Your task to perform on an android device: Search for pizza restaurants on Maps Image 0: 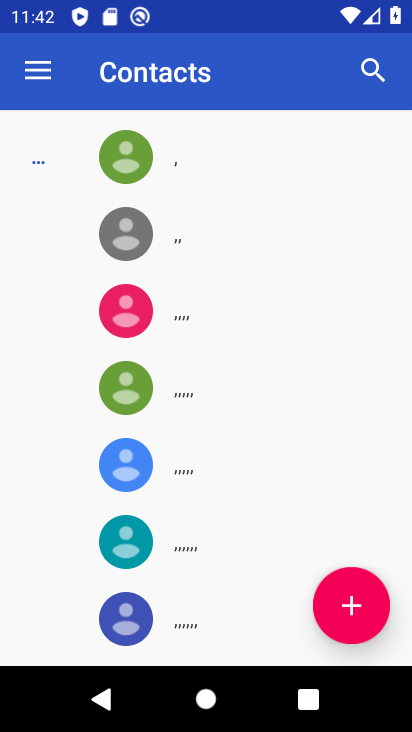
Step 0: press home button
Your task to perform on an android device: Search for pizza restaurants on Maps Image 1: 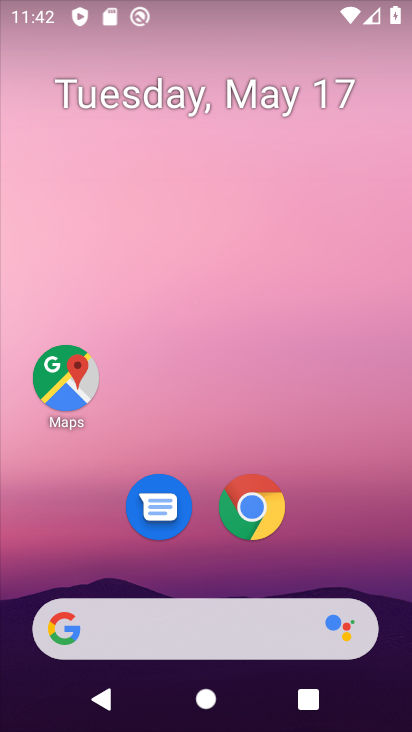
Step 1: click (80, 368)
Your task to perform on an android device: Search for pizza restaurants on Maps Image 2: 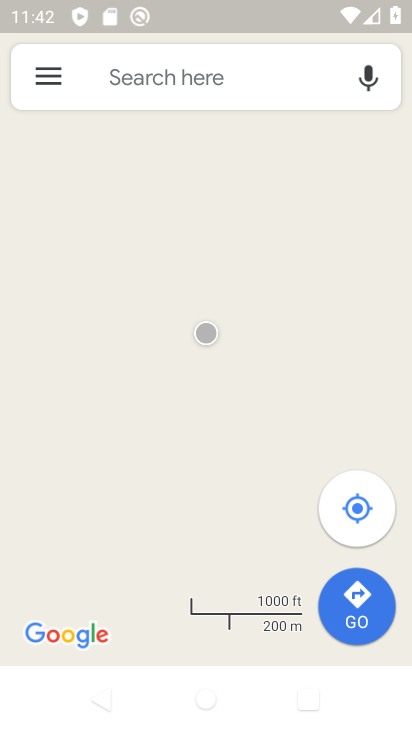
Step 2: click (229, 53)
Your task to perform on an android device: Search for pizza restaurants on Maps Image 3: 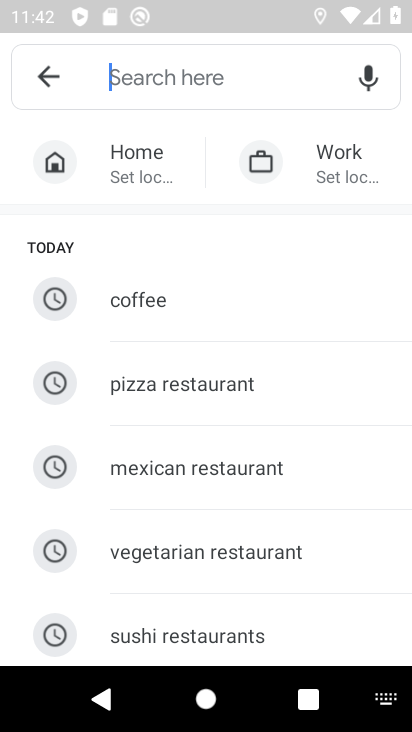
Step 3: click (198, 386)
Your task to perform on an android device: Search for pizza restaurants on Maps Image 4: 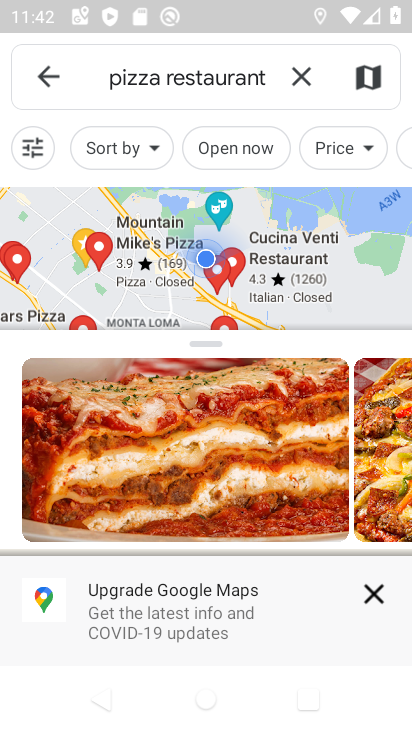
Step 4: task complete